Your task to perform on an android device: change timer sound Image 0: 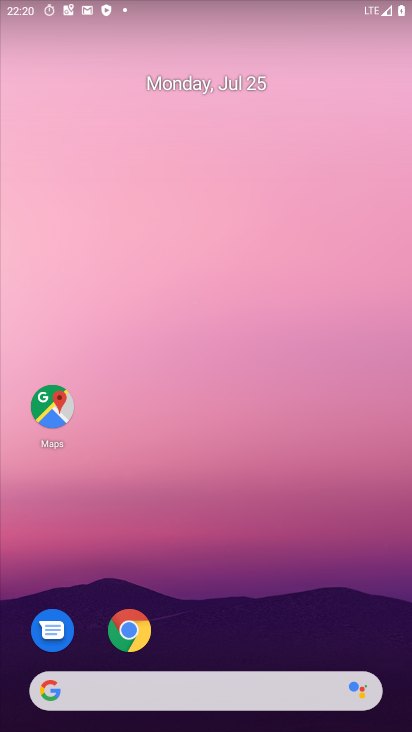
Step 0: press home button
Your task to perform on an android device: change timer sound Image 1: 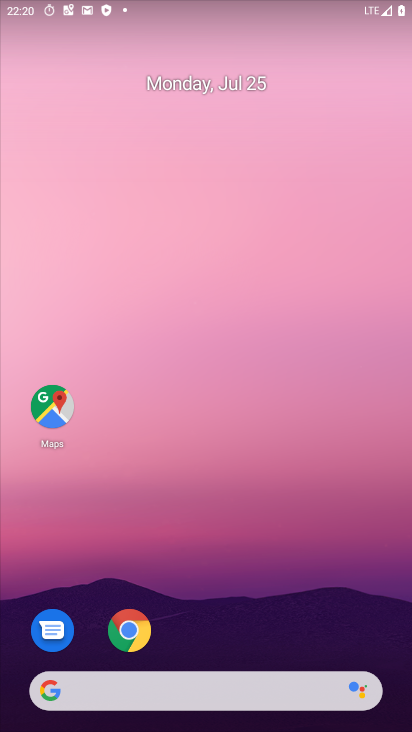
Step 1: click (353, 581)
Your task to perform on an android device: change timer sound Image 2: 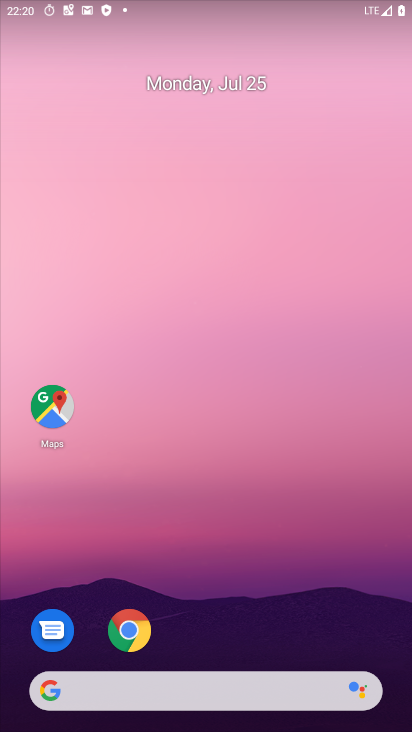
Step 2: drag from (260, 471) to (261, 77)
Your task to perform on an android device: change timer sound Image 3: 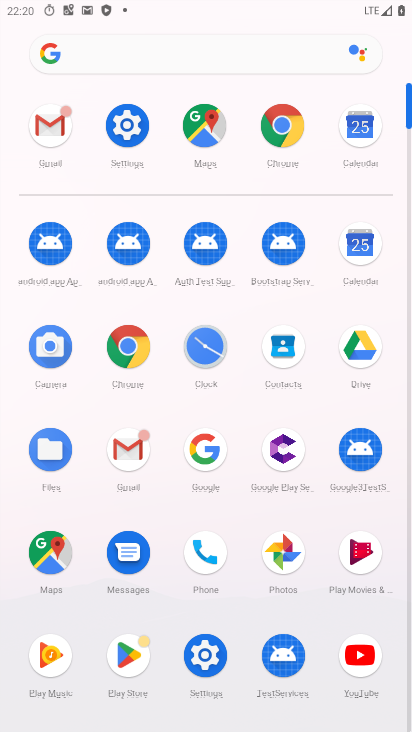
Step 3: click (198, 347)
Your task to perform on an android device: change timer sound Image 4: 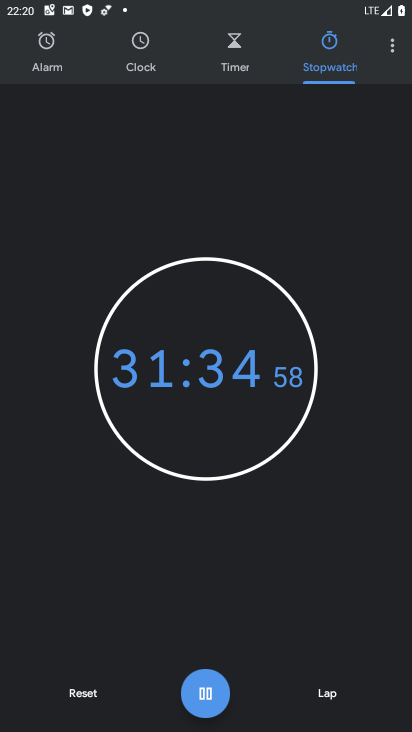
Step 4: click (387, 43)
Your task to perform on an android device: change timer sound Image 5: 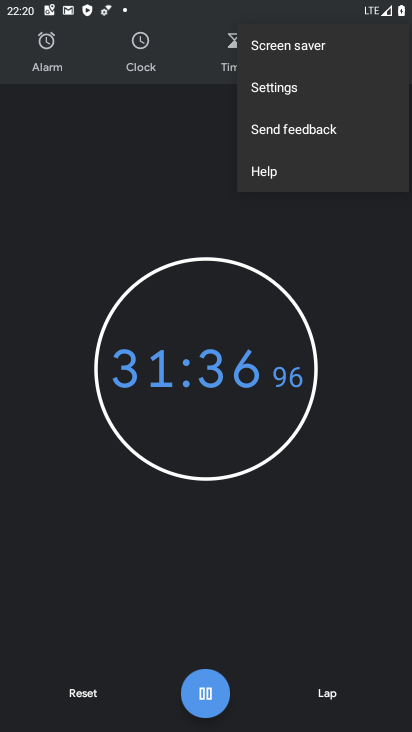
Step 5: click (266, 81)
Your task to perform on an android device: change timer sound Image 6: 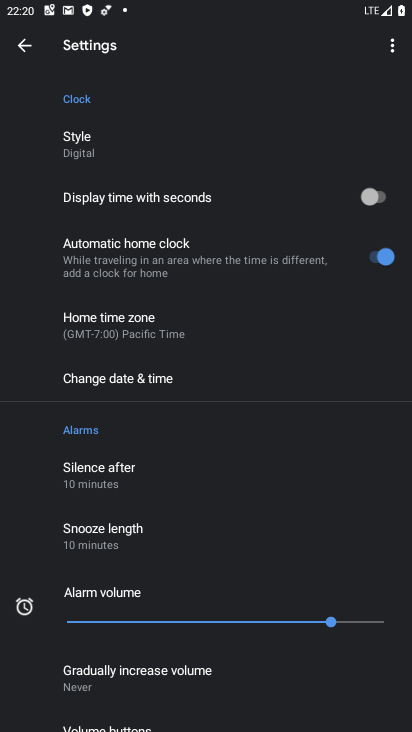
Step 6: drag from (315, 695) to (278, 347)
Your task to perform on an android device: change timer sound Image 7: 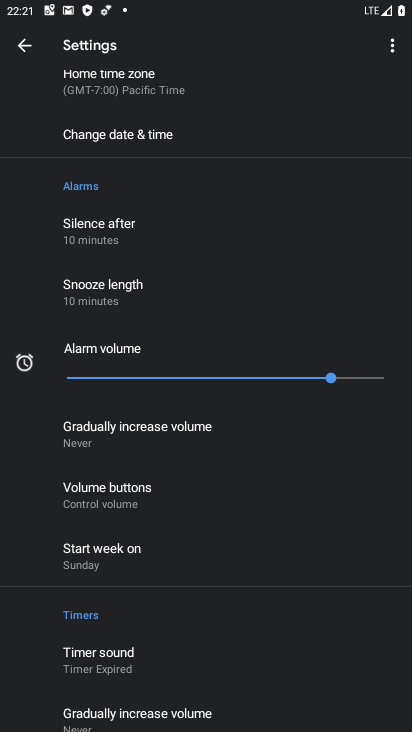
Step 7: click (130, 666)
Your task to perform on an android device: change timer sound Image 8: 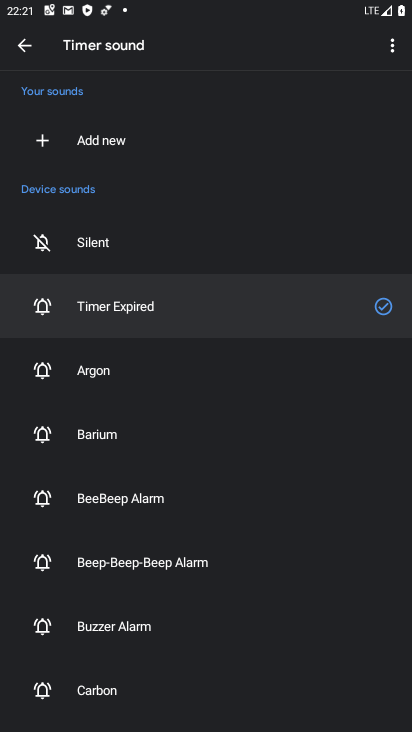
Step 8: click (88, 434)
Your task to perform on an android device: change timer sound Image 9: 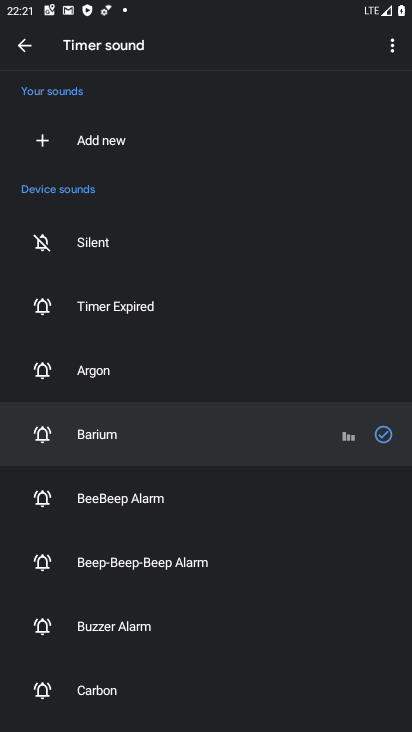
Step 9: task complete